Your task to perform on an android device: turn pop-ups on in chrome Image 0: 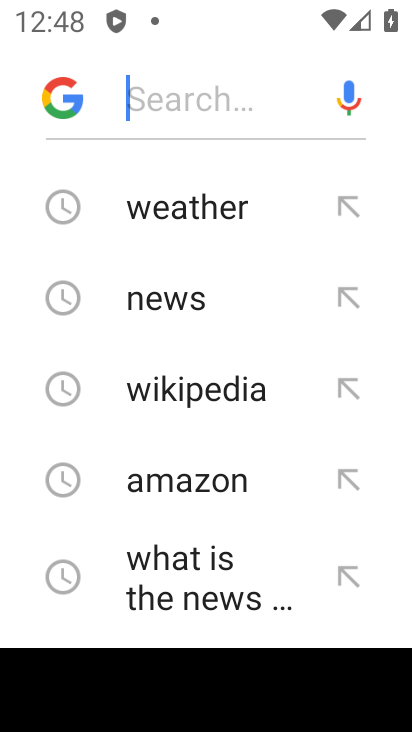
Step 0: press back button
Your task to perform on an android device: turn pop-ups on in chrome Image 1: 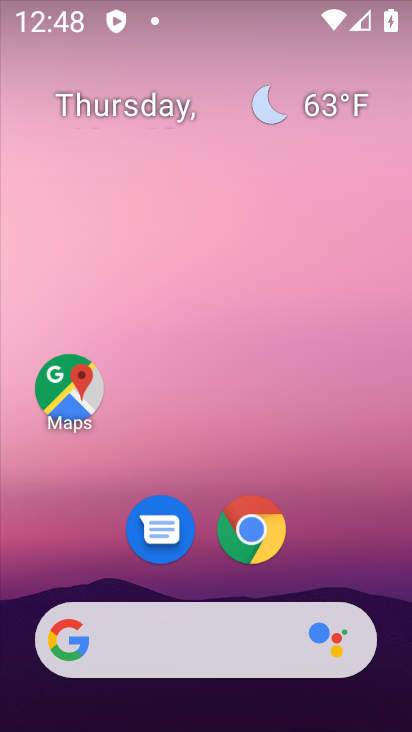
Step 1: click (250, 532)
Your task to perform on an android device: turn pop-ups on in chrome Image 2: 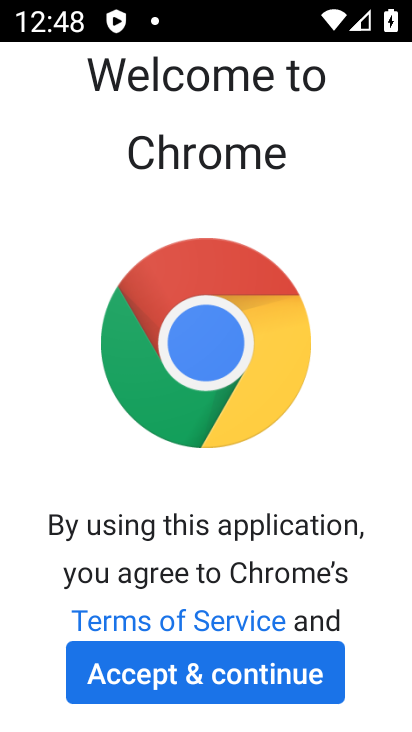
Step 2: click (224, 674)
Your task to perform on an android device: turn pop-ups on in chrome Image 3: 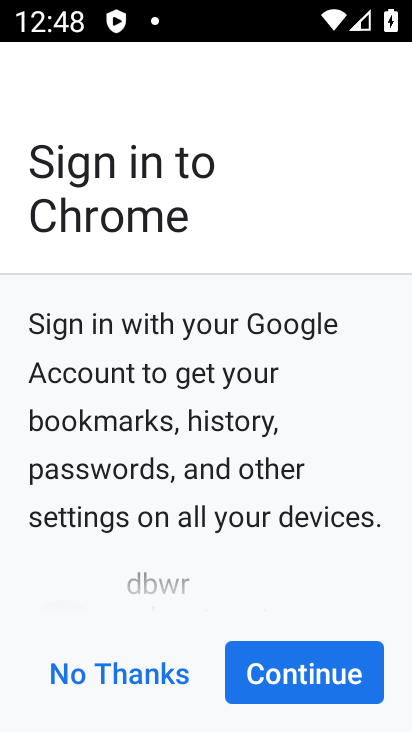
Step 3: click (280, 676)
Your task to perform on an android device: turn pop-ups on in chrome Image 4: 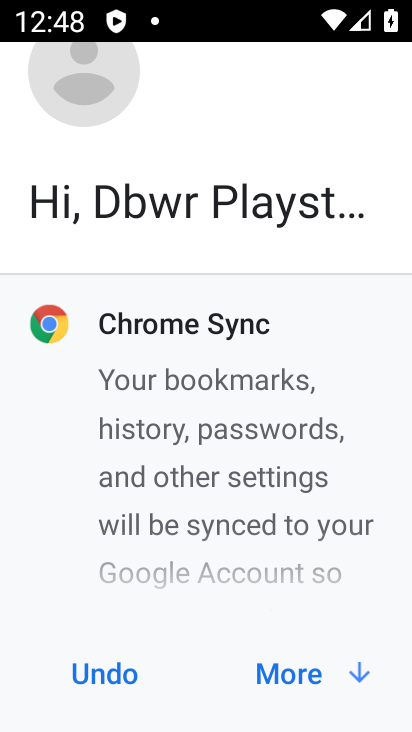
Step 4: click (280, 676)
Your task to perform on an android device: turn pop-ups on in chrome Image 5: 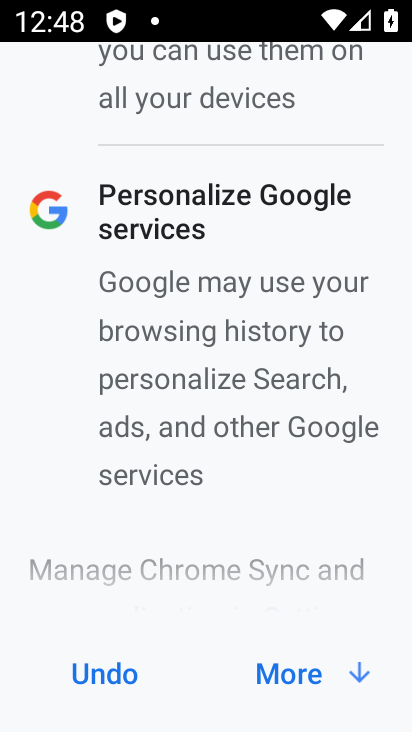
Step 5: click (280, 676)
Your task to perform on an android device: turn pop-ups on in chrome Image 6: 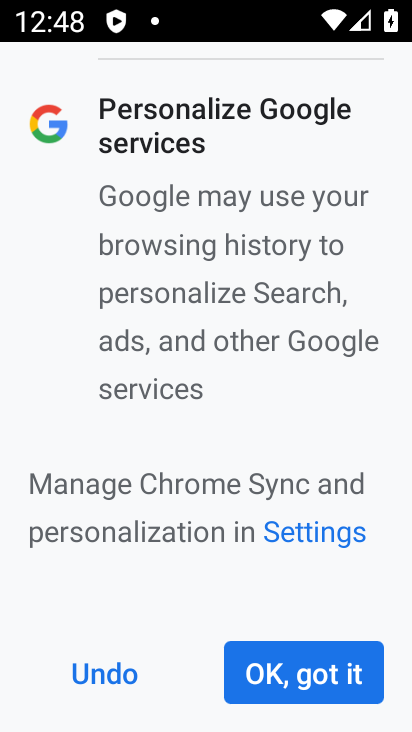
Step 6: click (280, 676)
Your task to perform on an android device: turn pop-ups on in chrome Image 7: 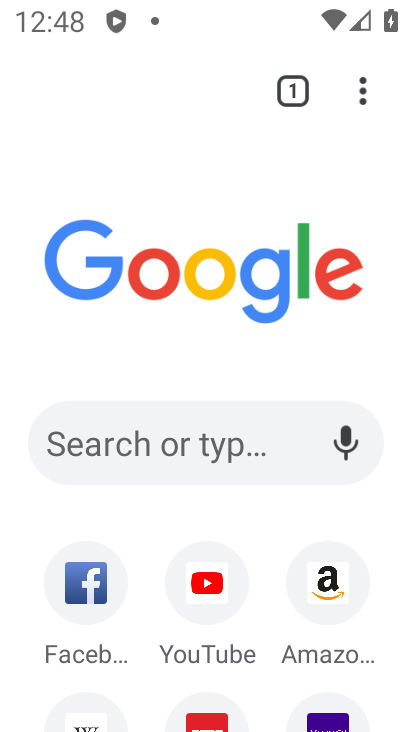
Step 7: click (363, 92)
Your task to perform on an android device: turn pop-ups on in chrome Image 8: 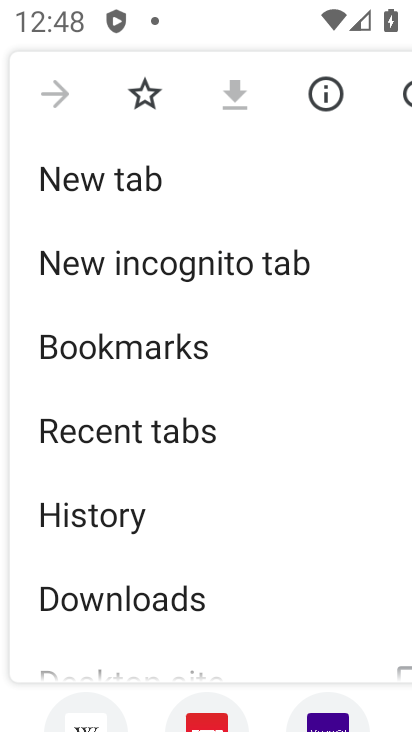
Step 8: drag from (190, 496) to (224, 377)
Your task to perform on an android device: turn pop-ups on in chrome Image 9: 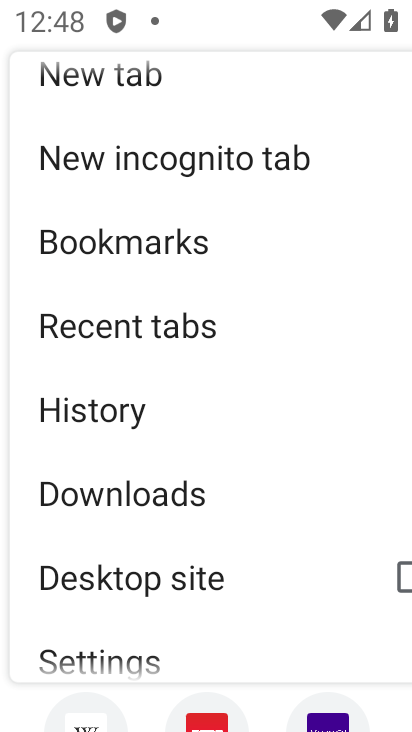
Step 9: drag from (141, 518) to (192, 432)
Your task to perform on an android device: turn pop-ups on in chrome Image 10: 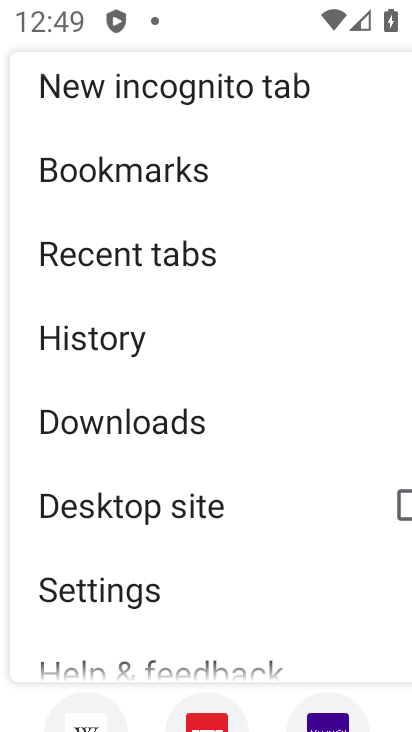
Step 10: click (110, 591)
Your task to perform on an android device: turn pop-ups on in chrome Image 11: 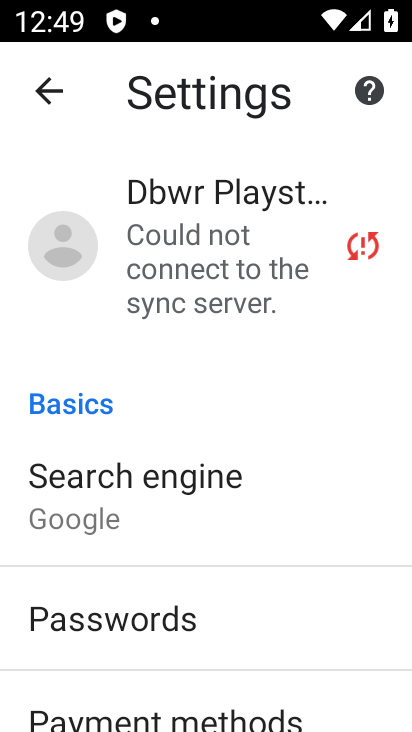
Step 11: drag from (143, 586) to (214, 489)
Your task to perform on an android device: turn pop-ups on in chrome Image 12: 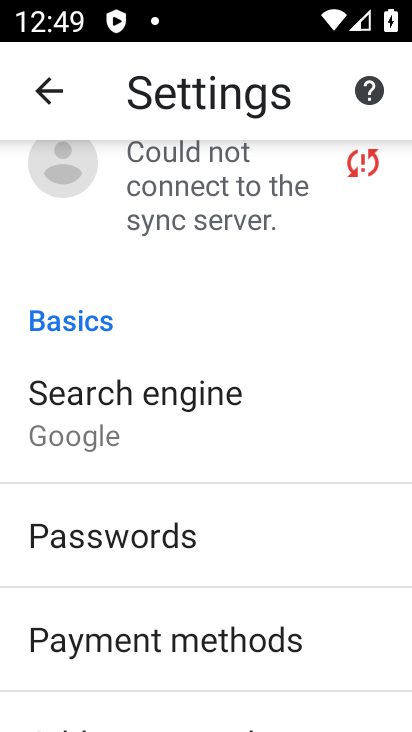
Step 12: drag from (161, 608) to (282, 460)
Your task to perform on an android device: turn pop-ups on in chrome Image 13: 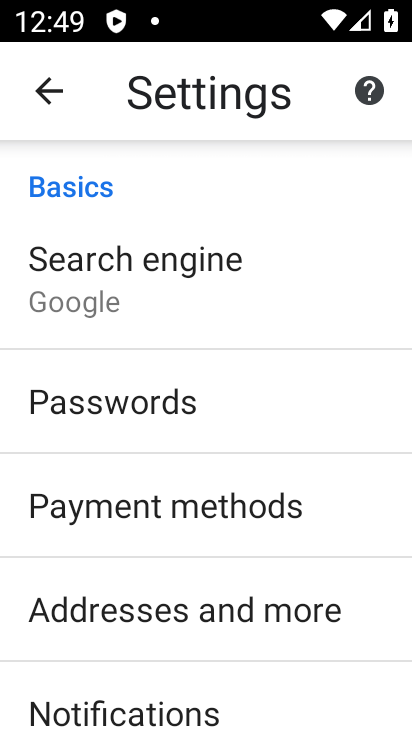
Step 13: drag from (194, 577) to (296, 443)
Your task to perform on an android device: turn pop-ups on in chrome Image 14: 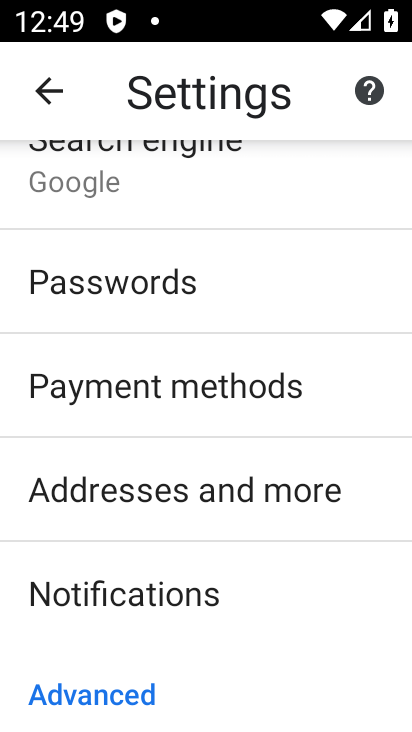
Step 14: drag from (251, 578) to (338, 393)
Your task to perform on an android device: turn pop-ups on in chrome Image 15: 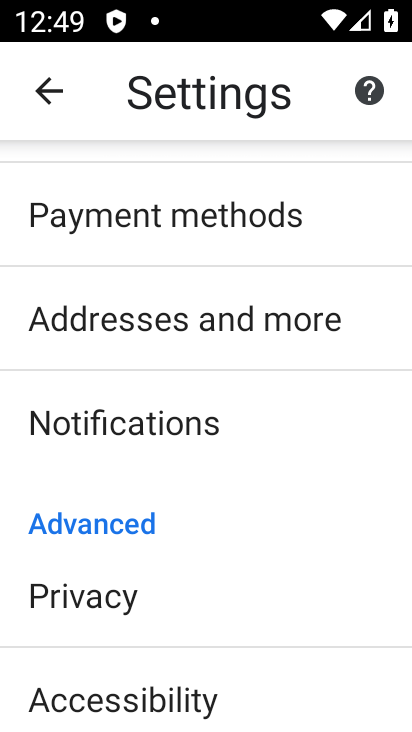
Step 15: drag from (193, 564) to (256, 445)
Your task to perform on an android device: turn pop-ups on in chrome Image 16: 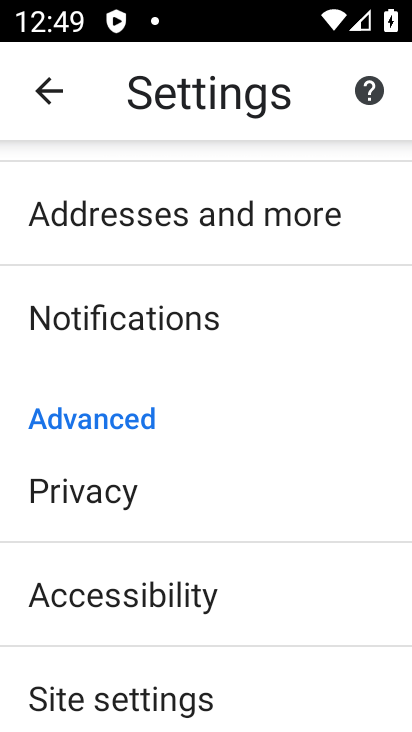
Step 16: drag from (263, 584) to (341, 463)
Your task to perform on an android device: turn pop-ups on in chrome Image 17: 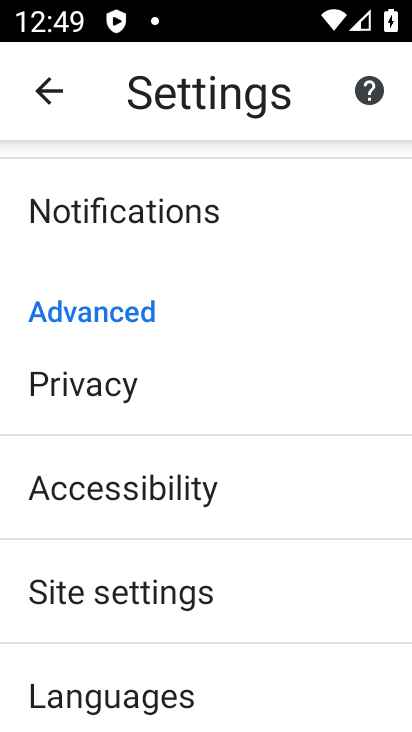
Step 17: click (152, 601)
Your task to perform on an android device: turn pop-ups on in chrome Image 18: 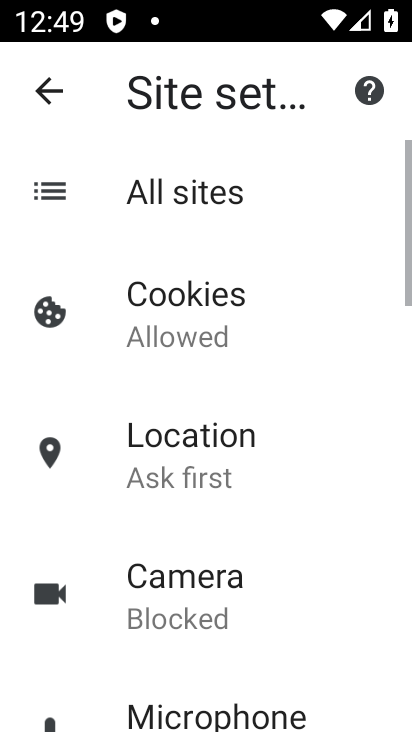
Step 18: drag from (224, 641) to (226, 523)
Your task to perform on an android device: turn pop-ups on in chrome Image 19: 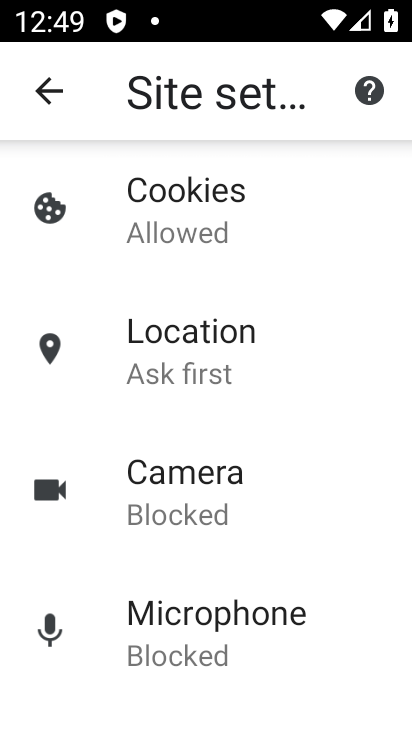
Step 19: drag from (244, 662) to (256, 477)
Your task to perform on an android device: turn pop-ups on in chrome Image 20: 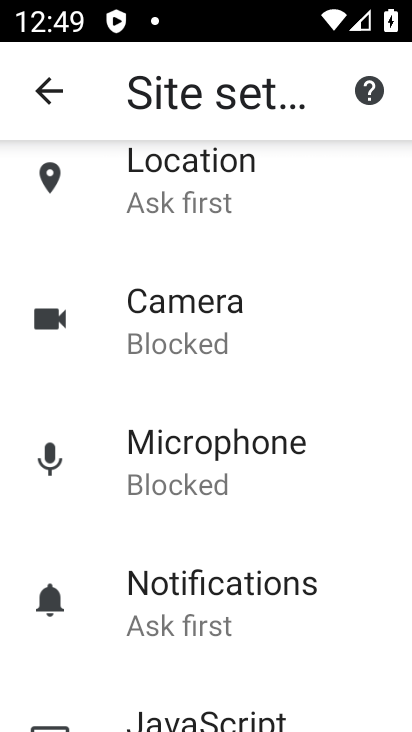
Step 20: drag from (238, 633) to (257, 547)
Your task to perform on an android device: turn pop-ups on in chrome Image 21: 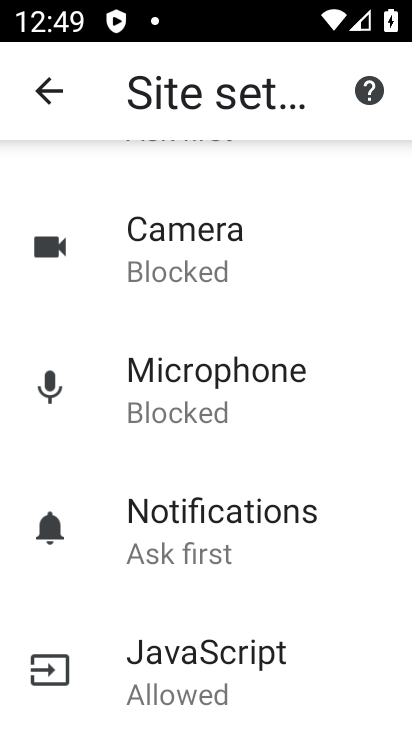
Step 21: drag from (269, 615) to (314, 503)
Your task to perform on an android device: turn pop-ups on in chrome Image 22: 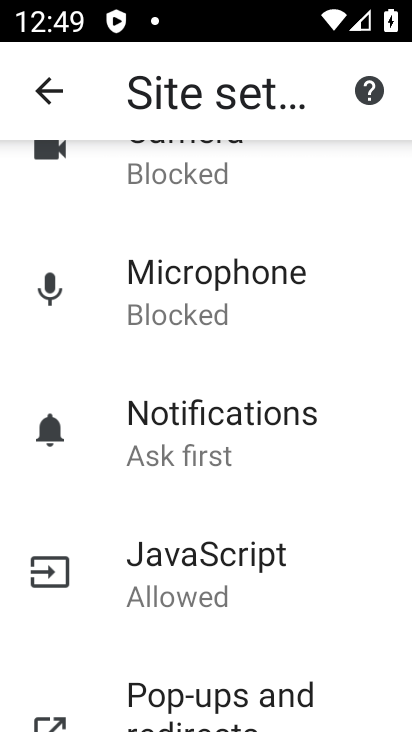
Step 22: drag from (222, 635) to (275, 521)
Your task to perform on an android device: turn pop-ups on in chrome Image 23: 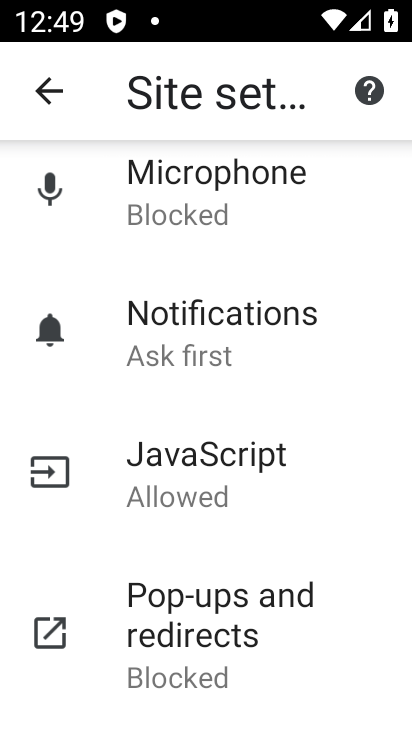
Step 23: click (243, 590)
Your task to perform on an android device: turn pop-ups on in chrome Image 24: 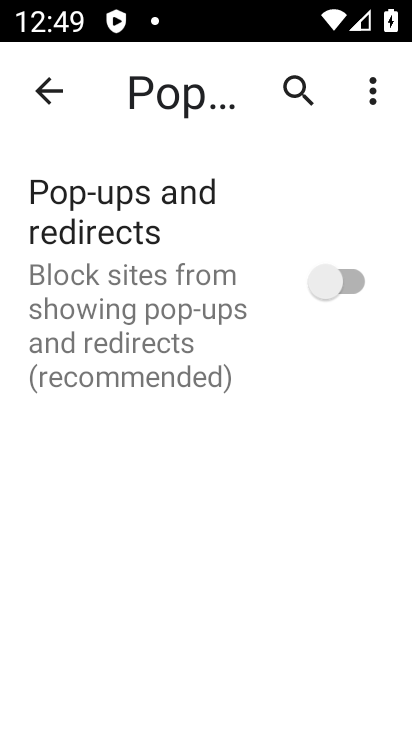
Step 24: click (330, 283)
Your task to perform on an android device: turn pop-ups on in chrome Image 25: 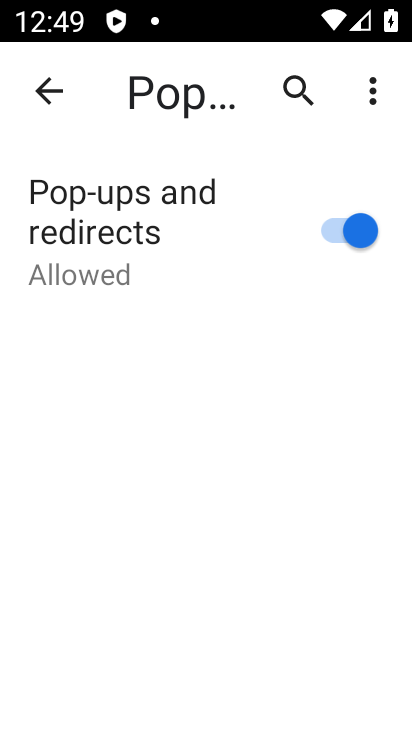
Step 25: task complete